Your task to perform on an android device: What's on my calendar today? Image 0: 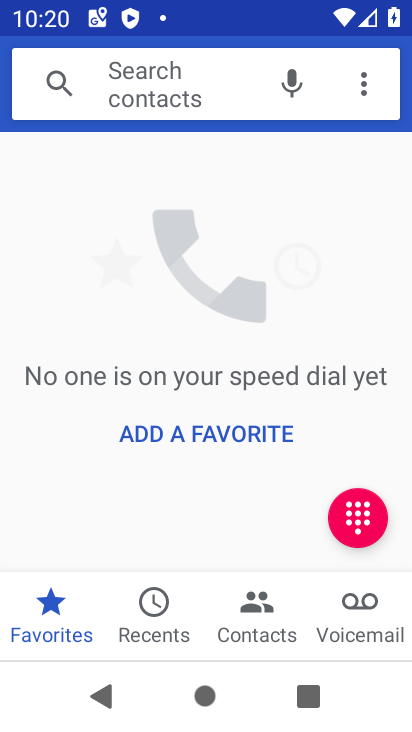
Step 0: press back button
Your task to perform on an android device: What's on my calendar today? Image 1: 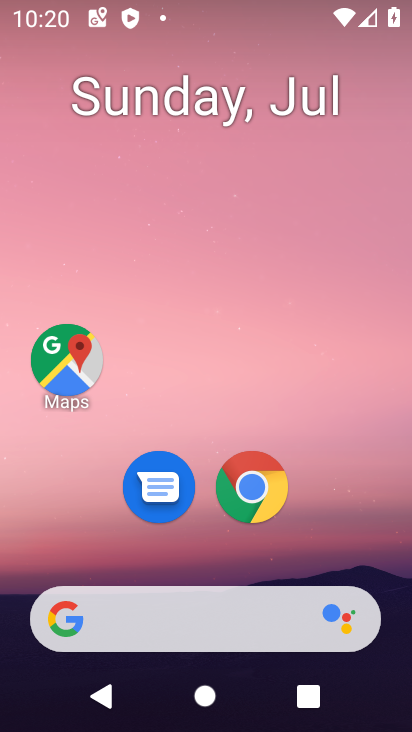
Step 1: drag from (177, 435) to (244, 15)
Your task to perform on an android device: What's on my calendar today? Image 2: 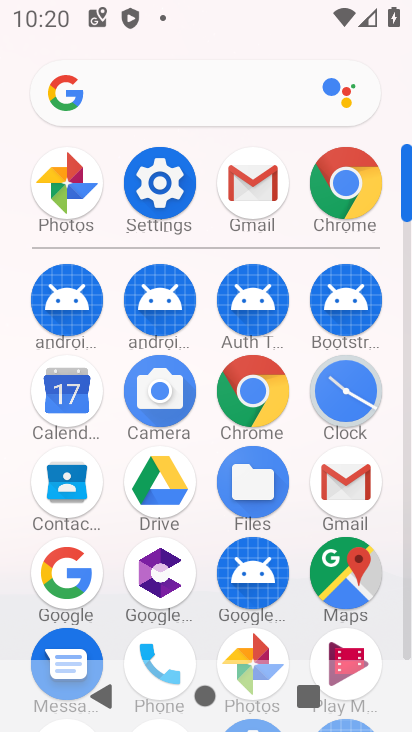
Step 2: click (62, 404)
Your task to perform on an android device: What's on my calendar today? Image 3: 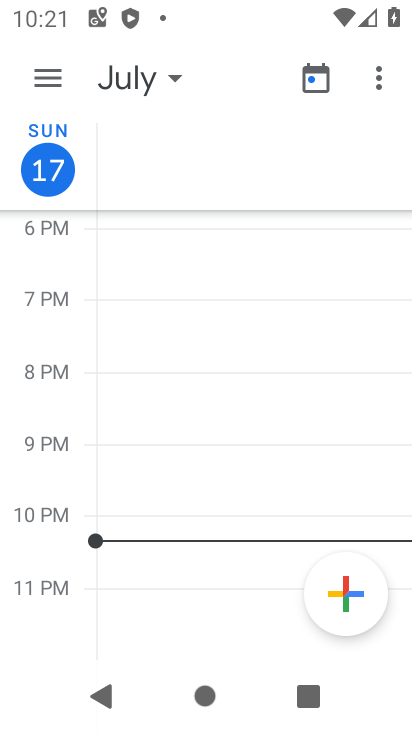
Step 3: press back button
Your task to perform on an android device: What's on my calendar today? Image 4: 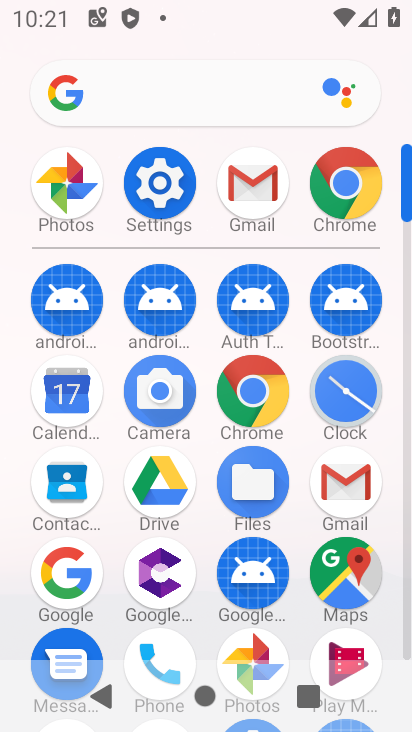
Step 4: click (73, 393)
Your task to perform on an android device: What's on my calendar today? Image 5: 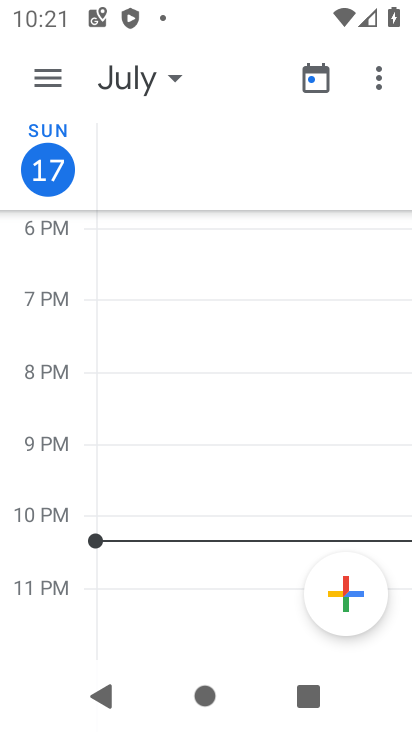
Step 5: click (46, 60)
Your task to perform on an android device: What's on my calendar today? Image 6: 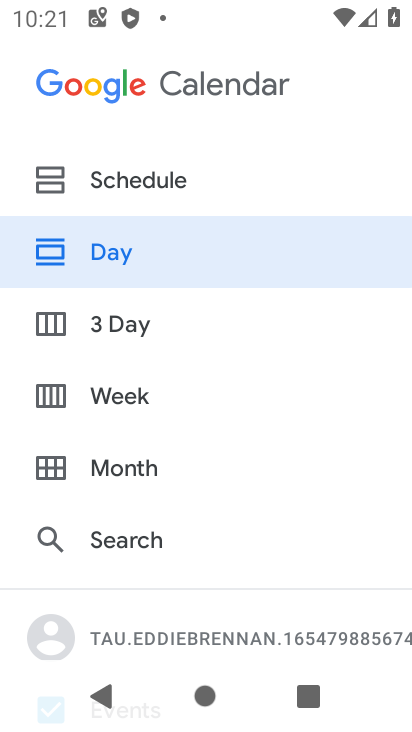
Step 6: click (121, 190)
Your task to perform on an android device: What's on my calendar today? Image 7: 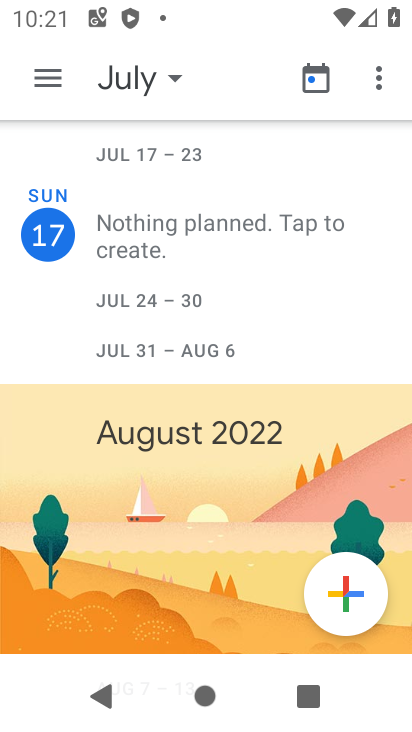
Step 7: task complete